Your task to perform on an android device: Go to notification settings Image 0: 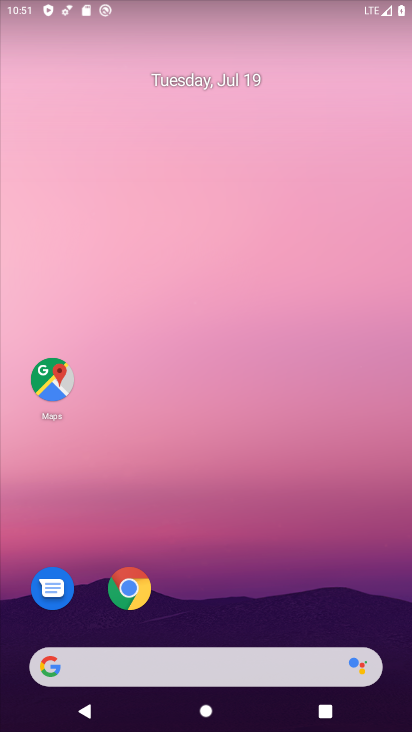
Step 0: drag from (264, 565) to (364, 73)
Your task to perform on an android device: Go to notification settings Image 1: 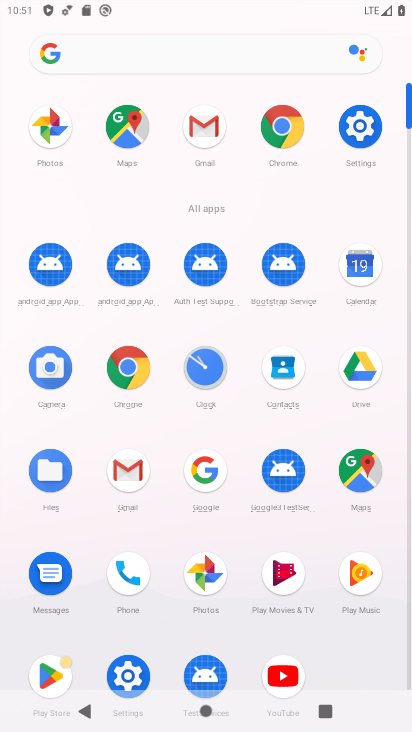
Step 1: click (354, 113)
Your task to perform on an android device: Go to notification settings Image 2: 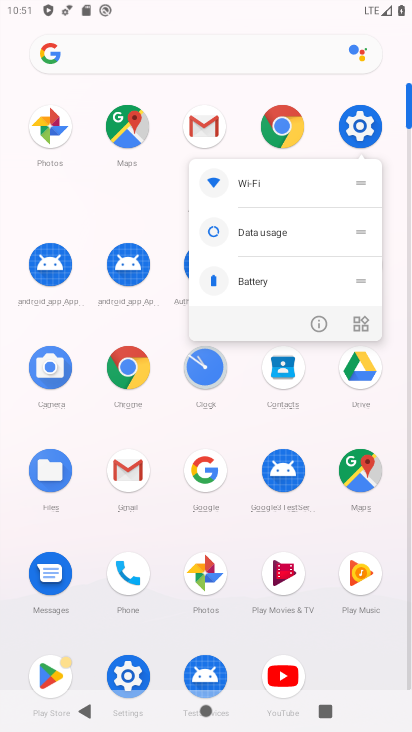
Step 2: click (355, 114)
Your task to perform on an android device: Go to notification settings Image 3: 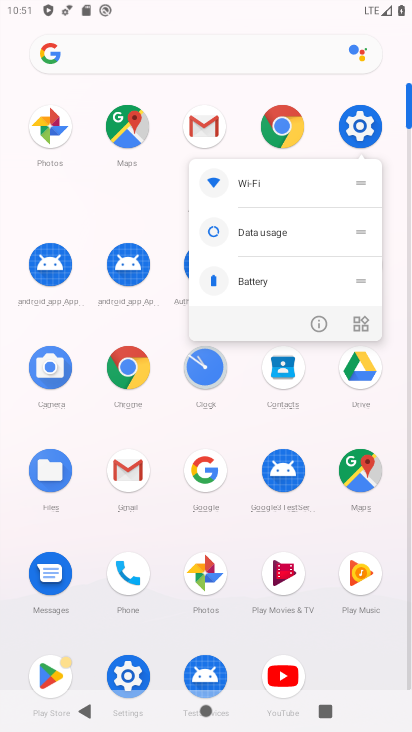
Step 3: click (357, 123)
Your task to perform on an android device: Go to notification settings Image 4: 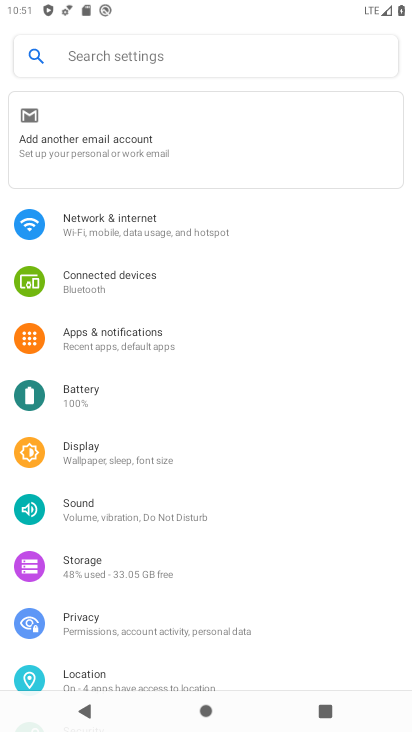
Step 4: click (111, 345)
Your task to perform on an android device: Go to notification settings Image 5: 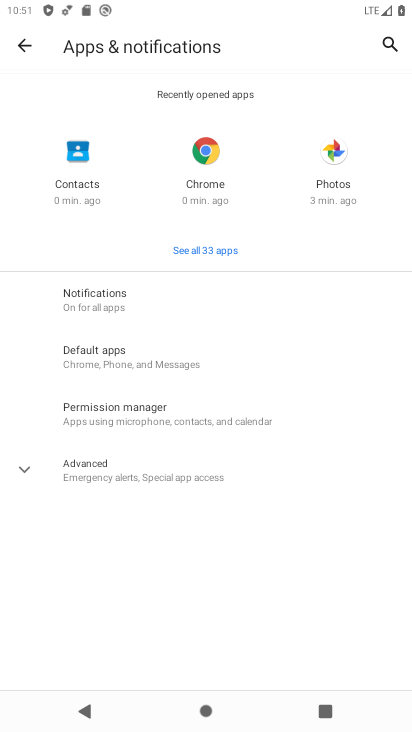
Step 5: click (98, 305)
Your task to perform on an android device: Go to notification settings Image 6: 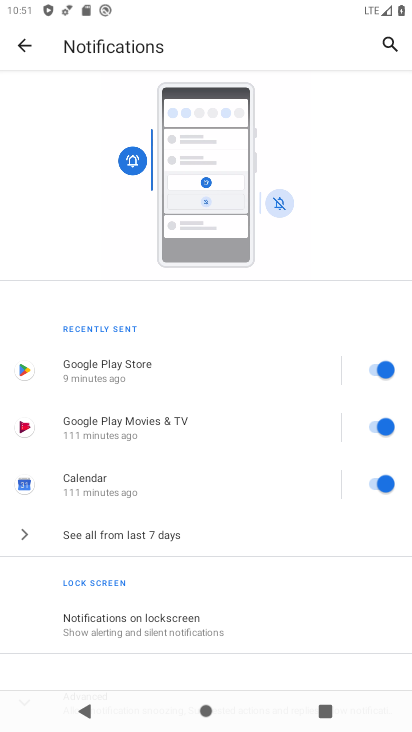
Step 6: task complete